Your task to perform on an android device: add a contact Image 0: 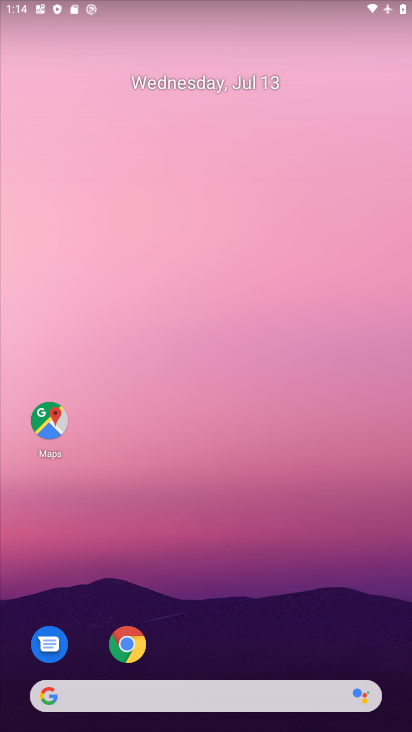
Step 0: drag from (275, 589) to (339, 92)
Your task to perform on an android device: add a contact Image 1: 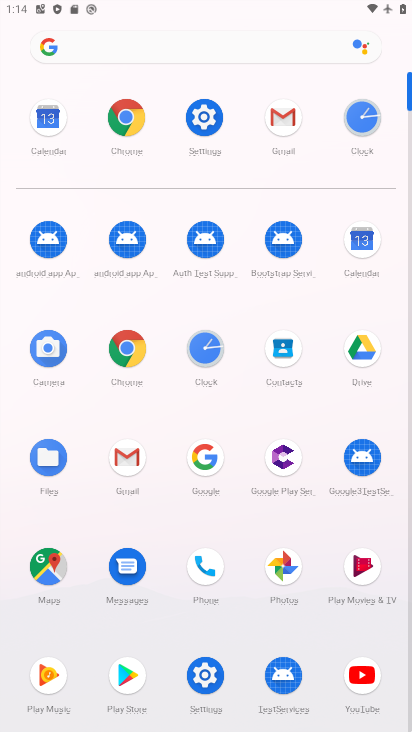
Step 1: click (287, 346)
Your task to perform on an android device: add a contact Image 2: 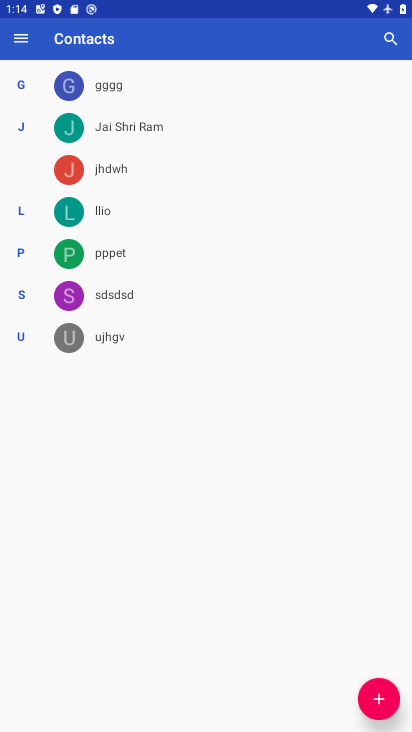
Step 2: click (378, 698)
Your task to perform on an android device: add a contact Image 3: 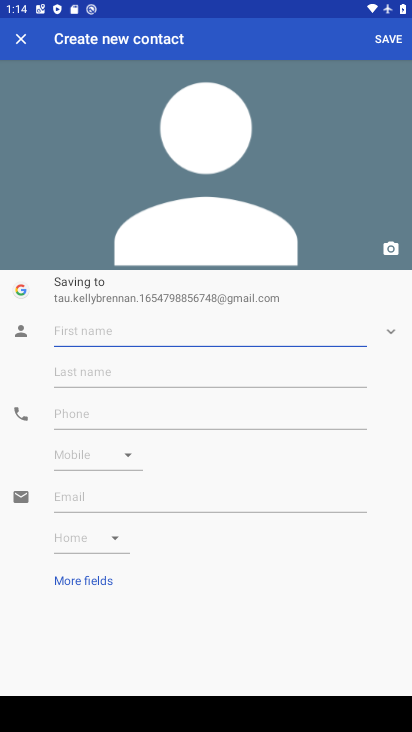
Step 3: click (171, 330)
Your task to perform on an android device: add a contact Image 4: 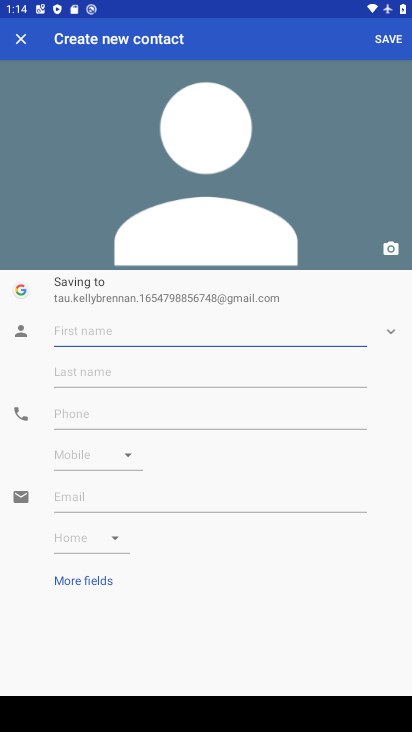
Step 4: type "pokawe"
Your task to perform on an android device: add a contact Image 5: 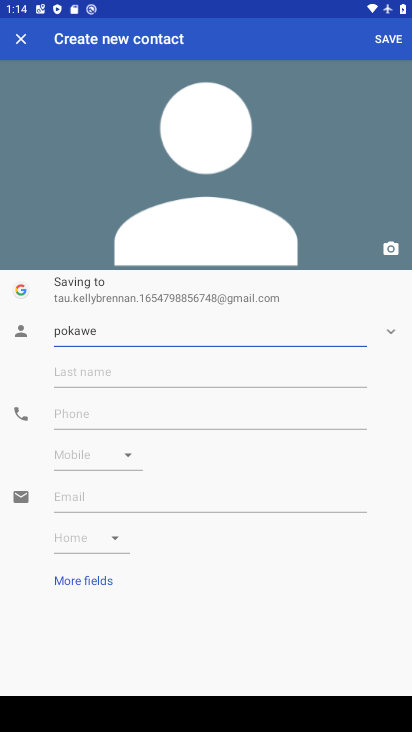
Step 5: click (387, 38)
Your task to perform on an android device: add a contact Image 6: 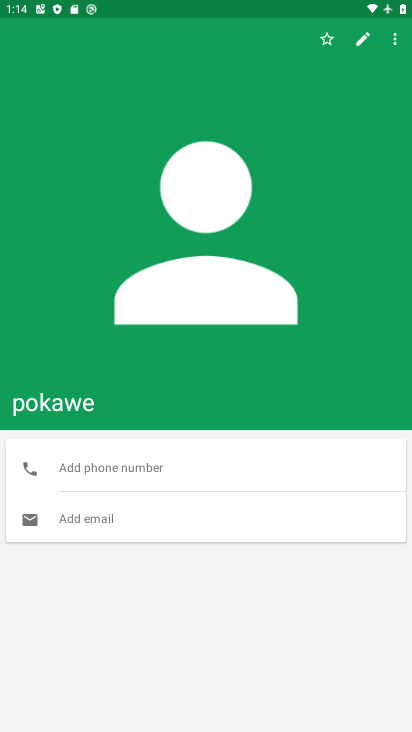
Step 6: task complete